Your task to perform on an android device: check data usage Image 0: 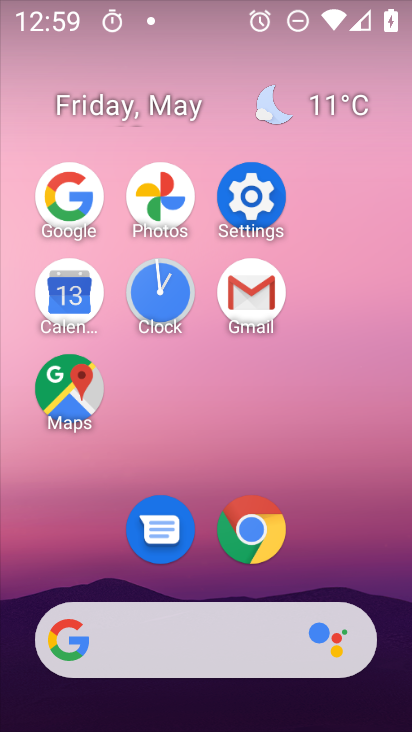
Step 0: click (281, 194)
Your task to perform on an android device: check data usage Image 1: 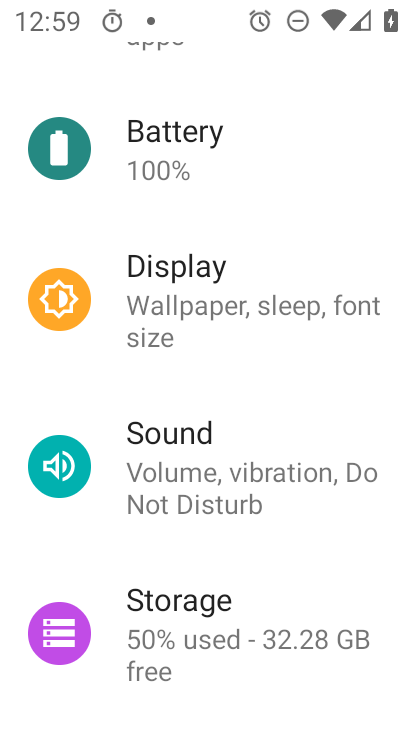
Step 1: drag from (276, 235) to (275, 592)
Your task to perform on an android device: check data usage Image 2: 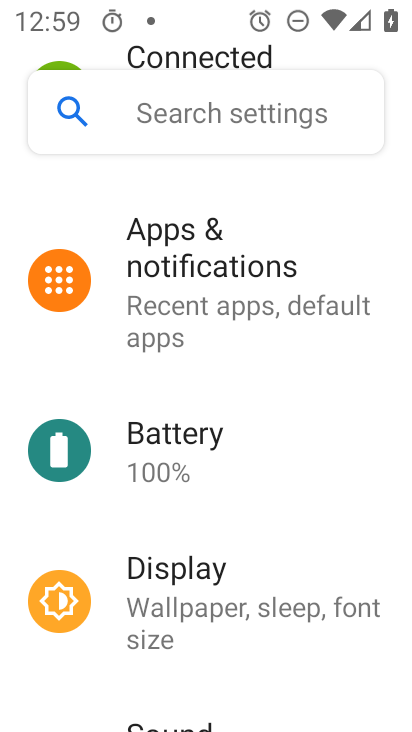
Step 2: drag from (304, 170) to (299, 690)
Your task to perform on an android device: check data usage Image 3: 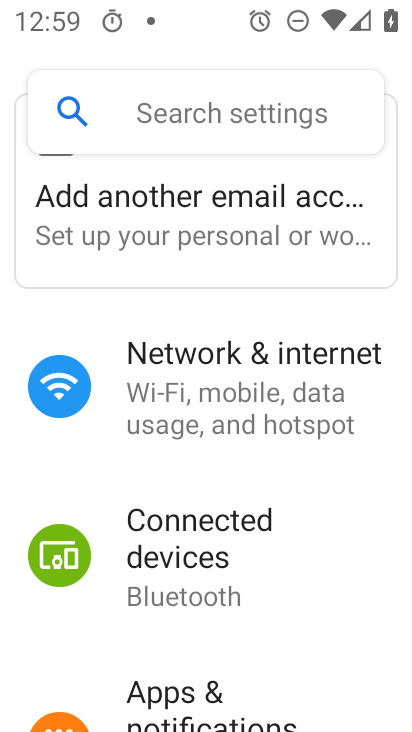
Step 3: click (258, 358)
Your task to perform on an android device: check data usage Image 4: 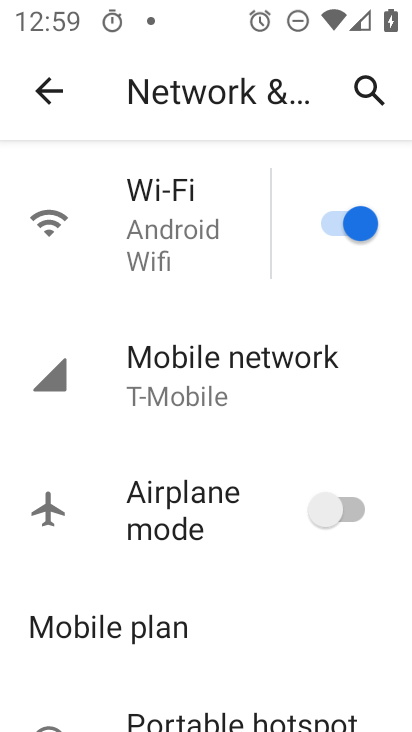
Step 4: click (258, 358)
Your task to perform on an android device: check data usage Image 5: 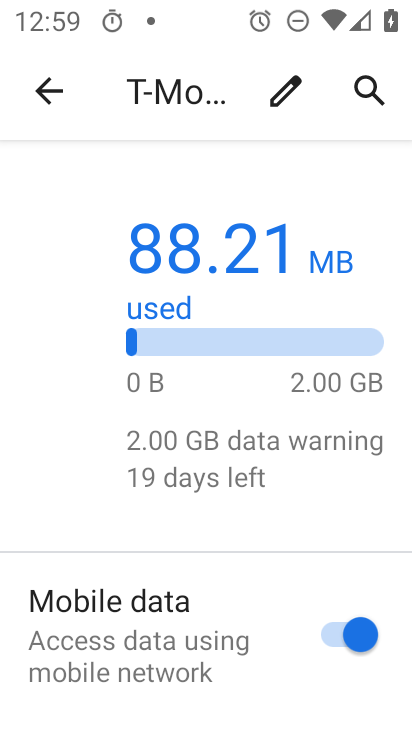
Step 5: task complete